Your task to perform on an android device: check out phone information Image 0: 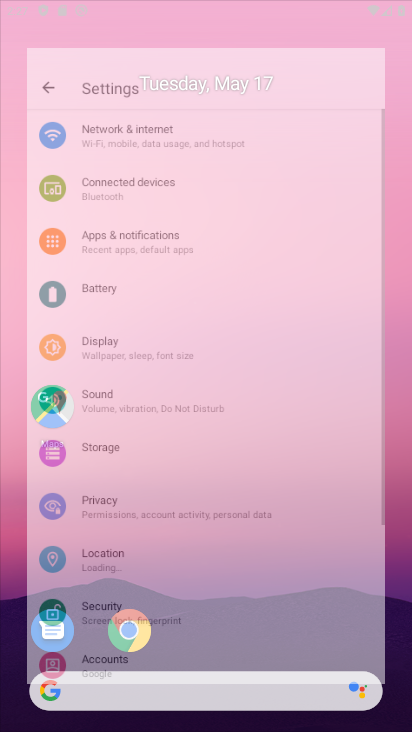
Step 0: drag from (310, 618) to (187, 144)
Your task to perform on an android device: check out phone information Image 1: 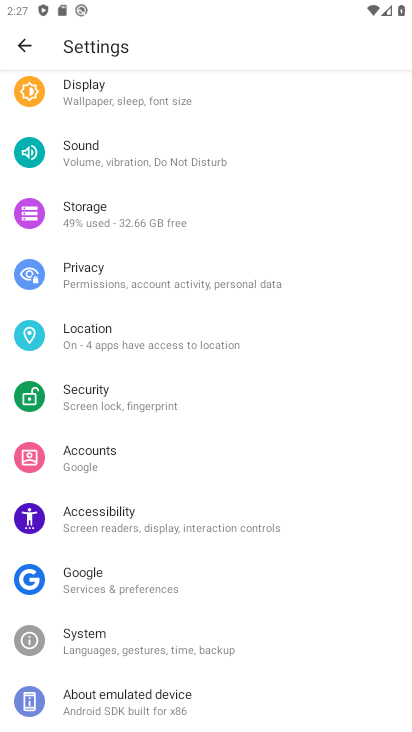
Step 1: press home button
Your task to perform on an android device: check out phone information Image 2: 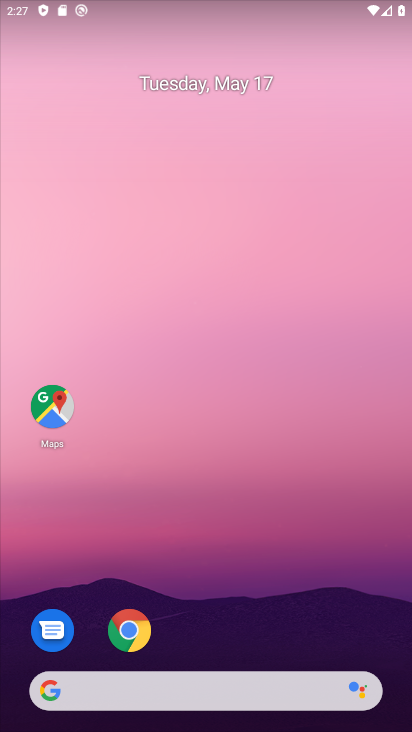
Step 2: drag from (280, 634) to (269, 138)
Your task to perform on an android device: check out phone information Image 3: 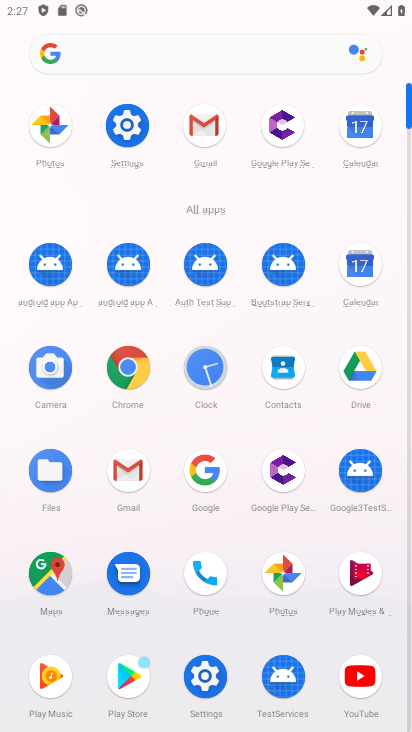
Step 3: click (133, 126)
Your task to perform on an android device: check out phone information Image 4: 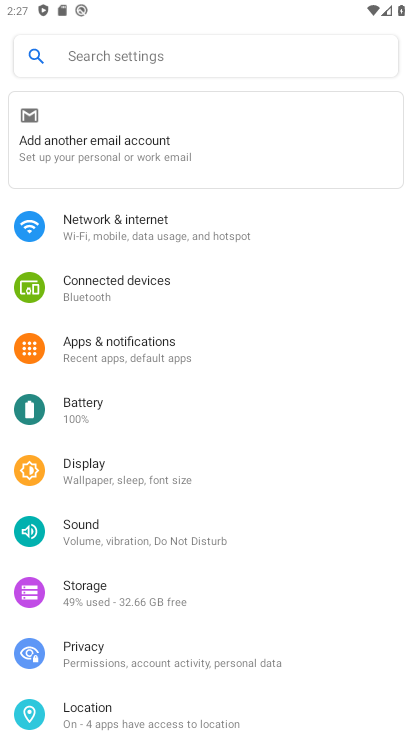
Step 4: drag from (306, 612) to (257, 80)
Your task to perform on an android device: check out phone information Image 5: 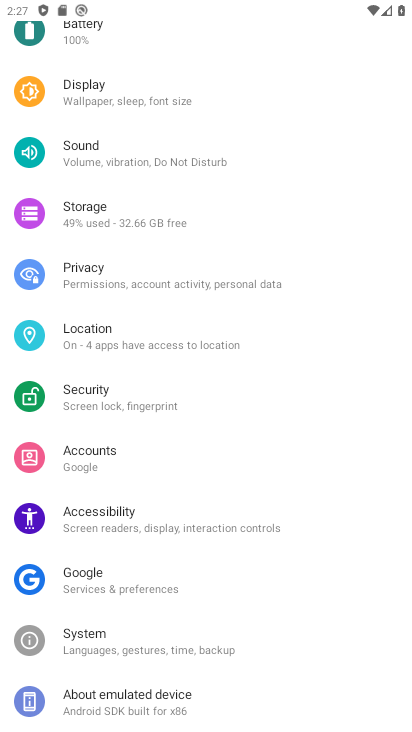
Step 5: drag from (207, 632) to (206, 207)
Your task to perform on an android device: check out phone information Image 6: 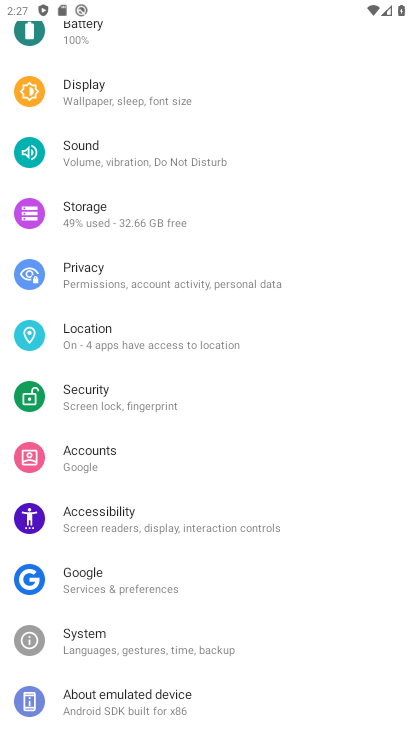
Step 6: click (109, 688)
Your task to perform on an android device: check out phone information Image 7: 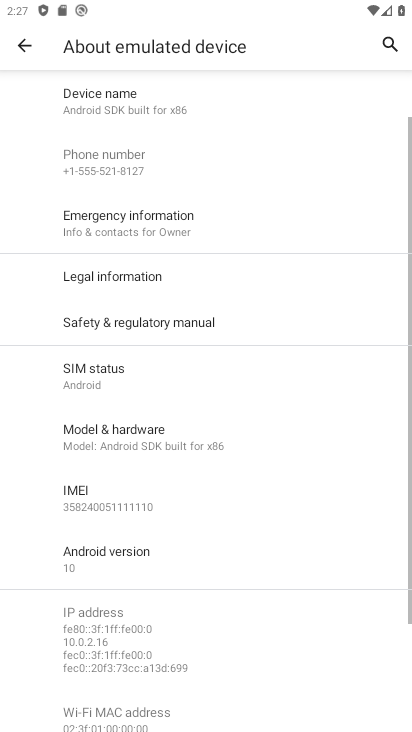
Step 7: click (132, 427)
Your task to perform on an android device: check out phone information Image 8: 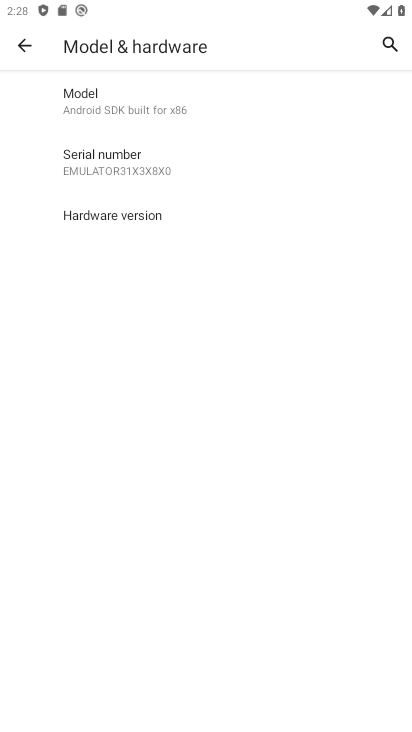
Step 8: task complete